Your task to perform on an android device: allow notifications from all sites in the chrome app Image 0: 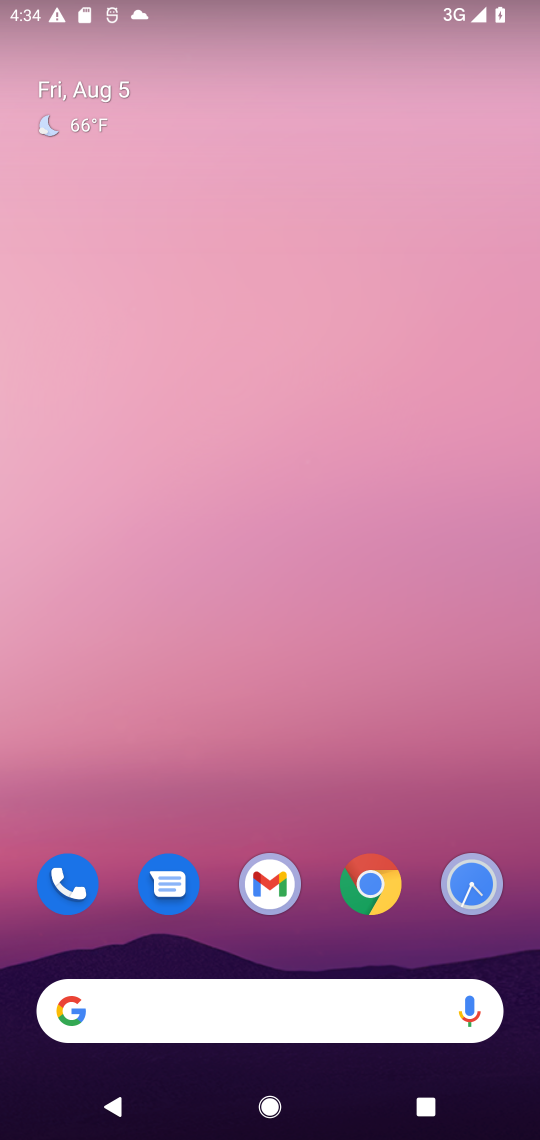
Step 0: drag from (415, 902) to (263, 29)
Your task to perform on an android device: allow notifications from all sites in the chrome app Image 1: 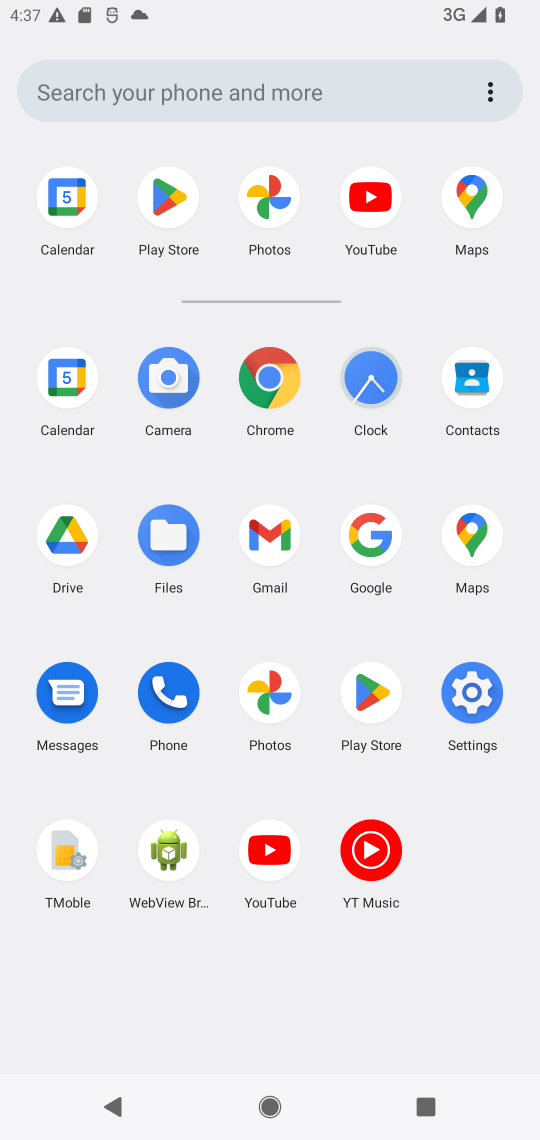
Step 1: click (283, 362)
Your task to perform on an android device: allow notifications from all sites in the chrome app Image 2: 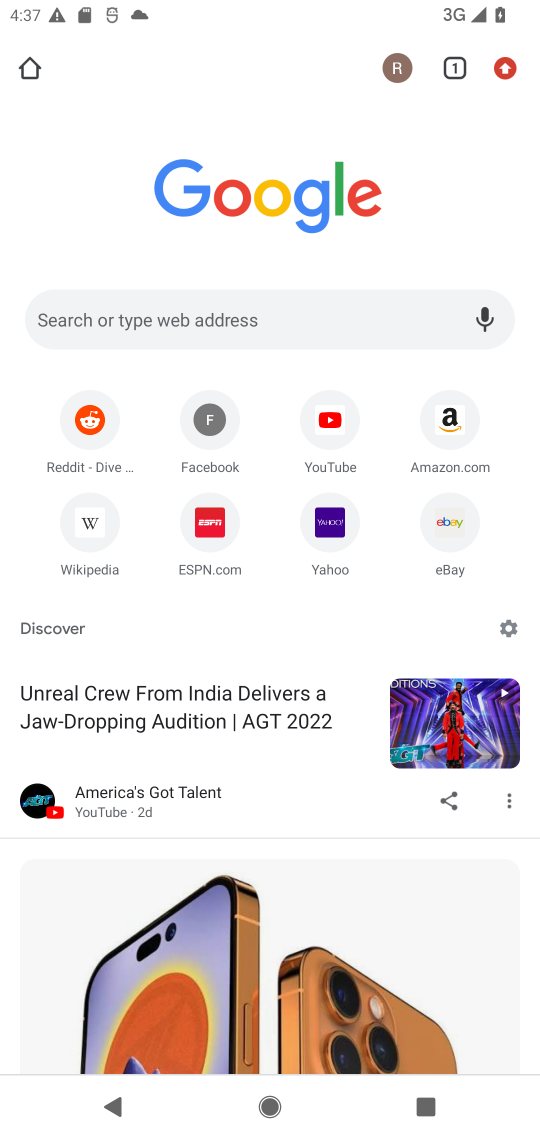
Step 2: click (514, 64)
Your task to perform on an android device: allow notifications from all sites in the chrome app Image 3: 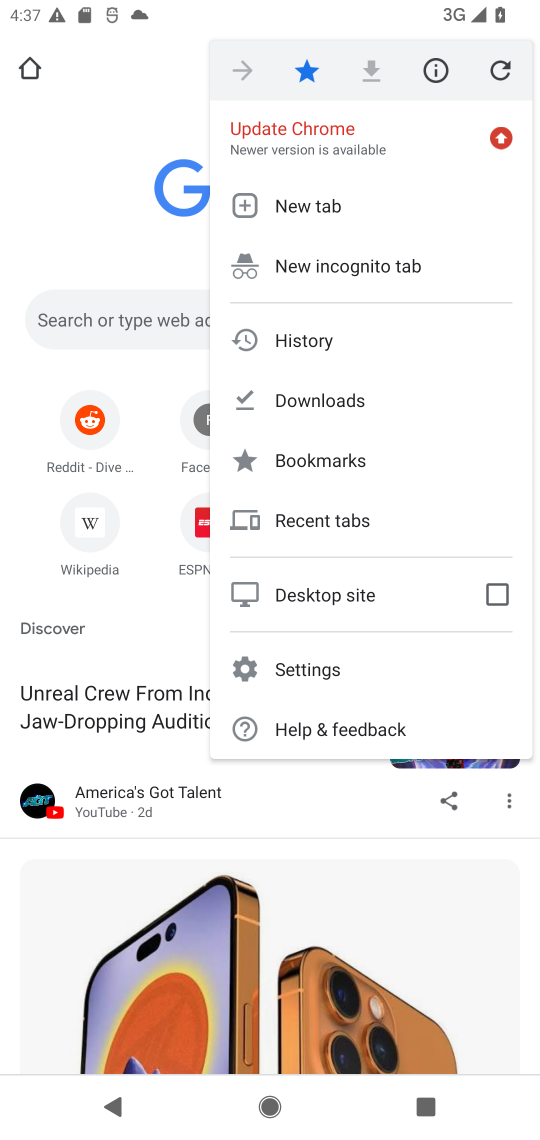
Step 3: click (316, 669)
Your task to perform on an android device: allow notifications from all sites in the chrome app Image 4: 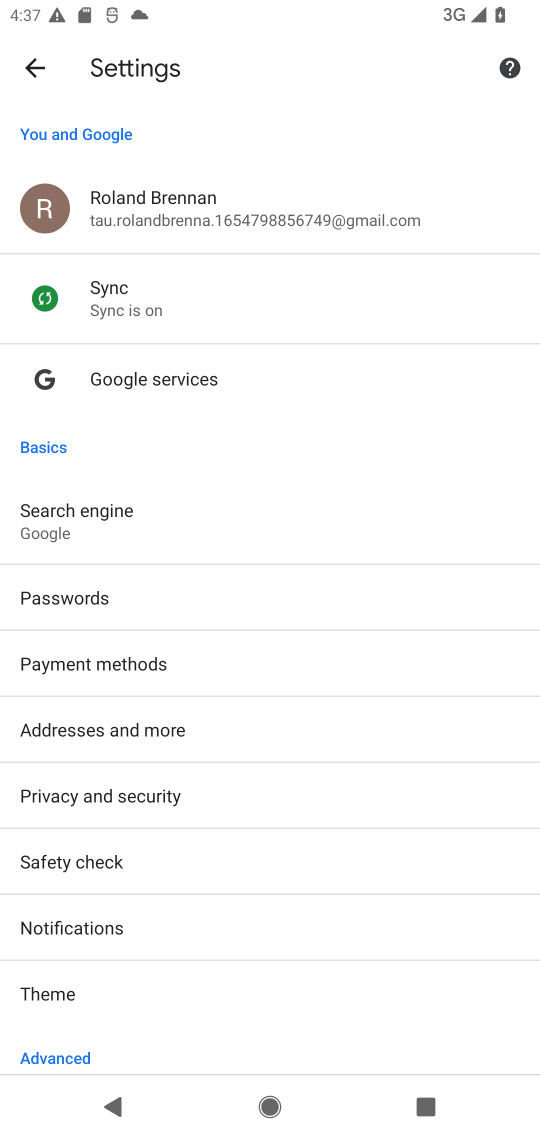
Step 4: drag from (147, 991) to (195, 523)
Your task to perform on an android device: allow notifications from all sites in the chrome app Image 5: 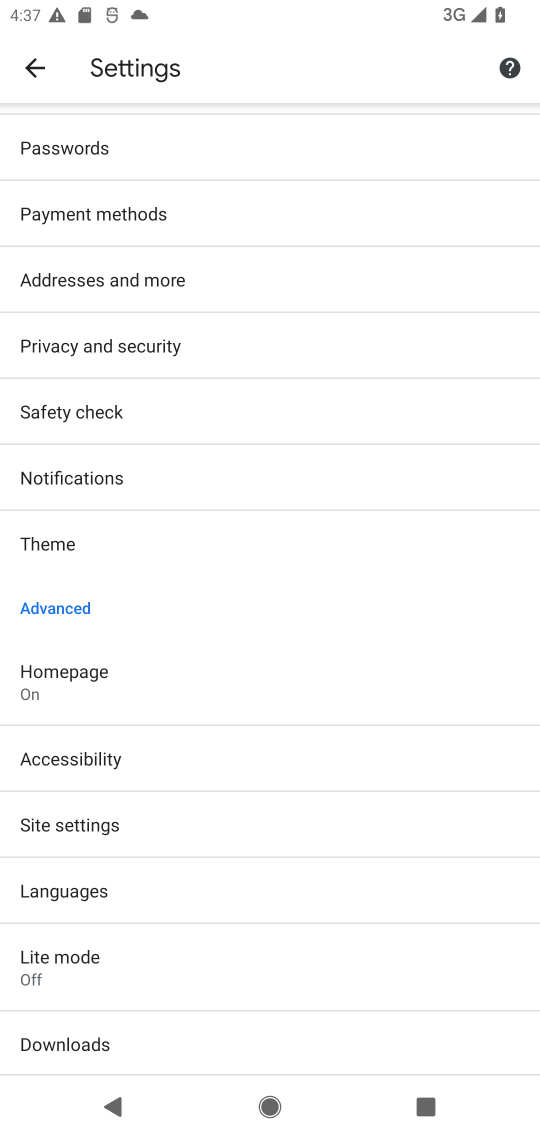
Step 5: click (156, 476)
Your task to perform on an android device: allow notifications from all sites in the chrome app Image 6: 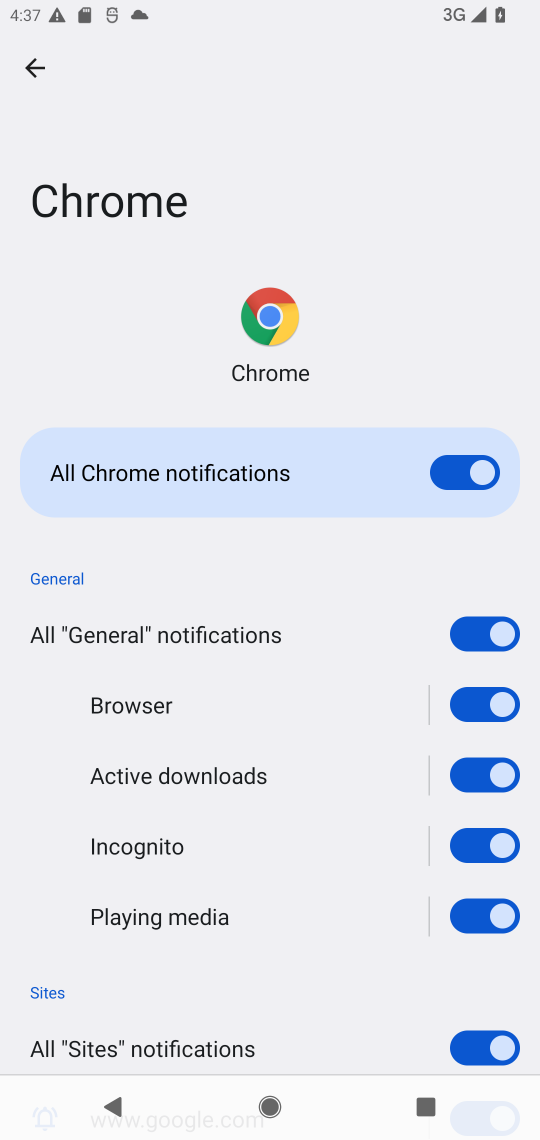
Step 6: task complete